Your task to perform on an android device: see sites visited before in the chrome app Image 0: 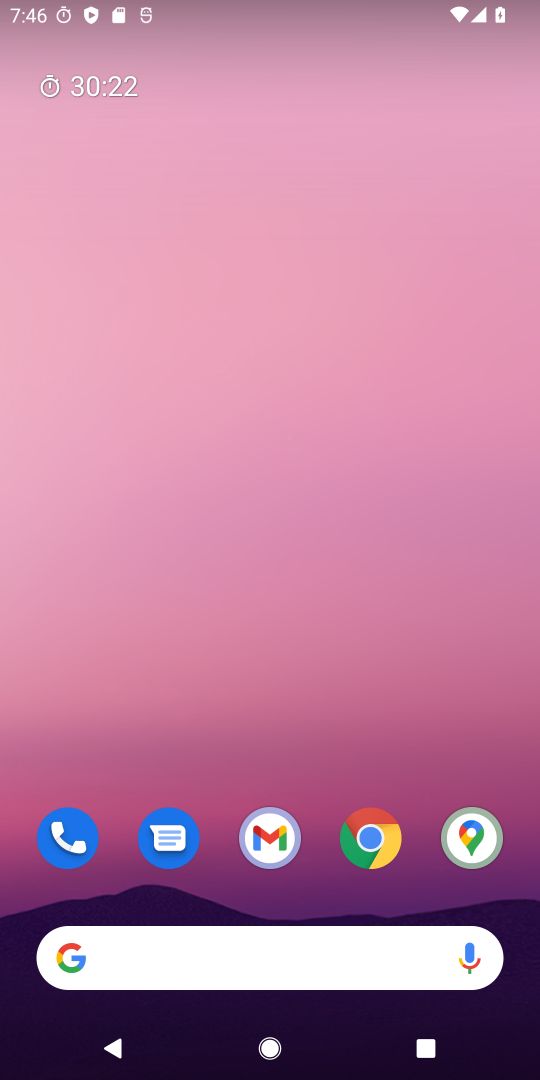
Step 0: drag from (357, 657) to (460, 108)
Your task to perform on an android device: see sites visited before in the chrome app Image 1: 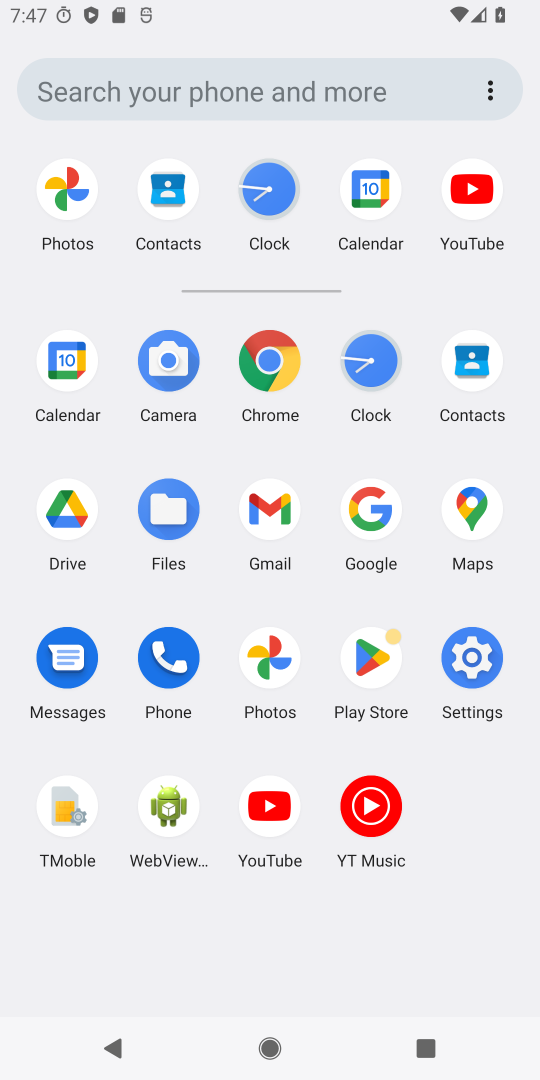
Step 1: click (269, 331)
Your task to perform on an android device: see sites visited before in the chrome app Image 2: 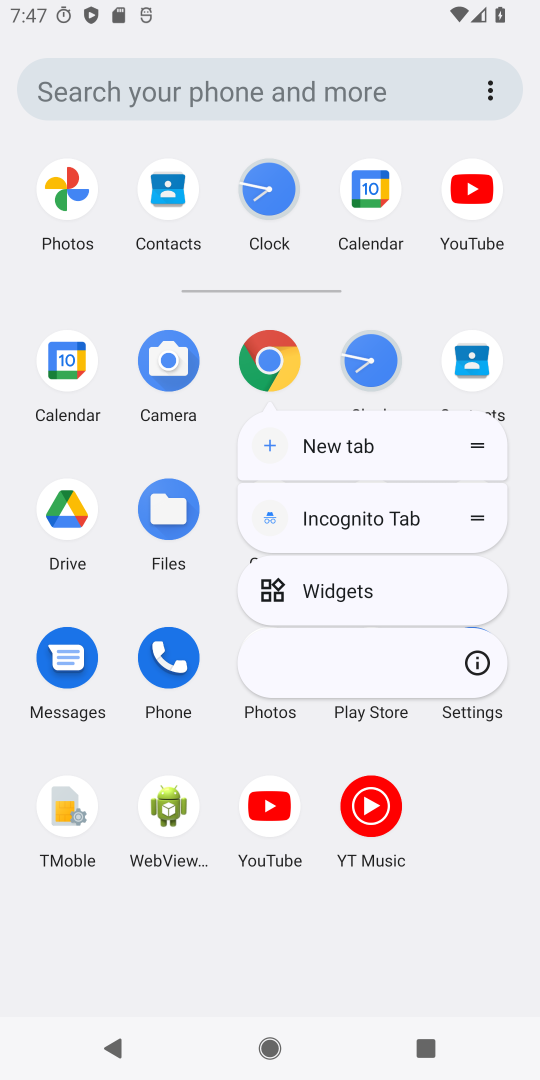
Step 2: click (269, 370)
Your task to perform on an android device: see sites visited before in the chrome app Image 3: 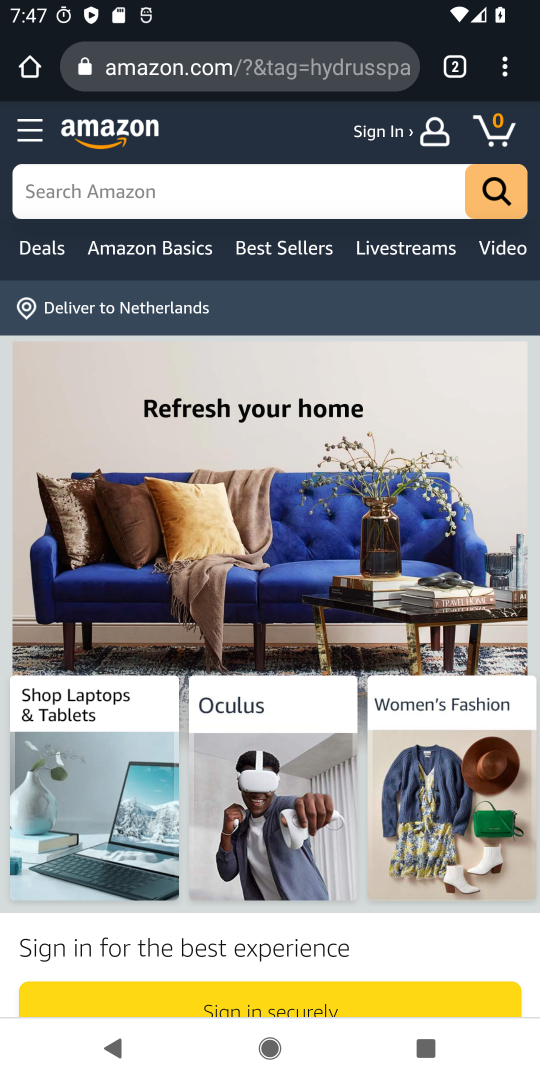
Step 3: drag from (503, 60) to (297, 343)
Your task to perform on an android device: see sites visited before in the chrome app Image 4: 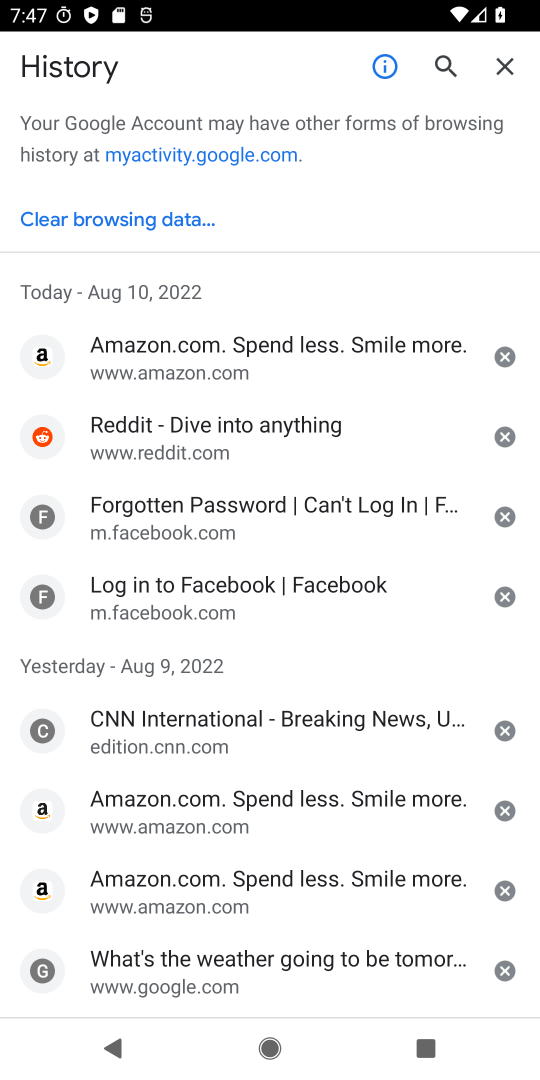
Step 4: click (212, 356)
Your task to perform on an android device: see sites visited before in the chrome app Image 5: 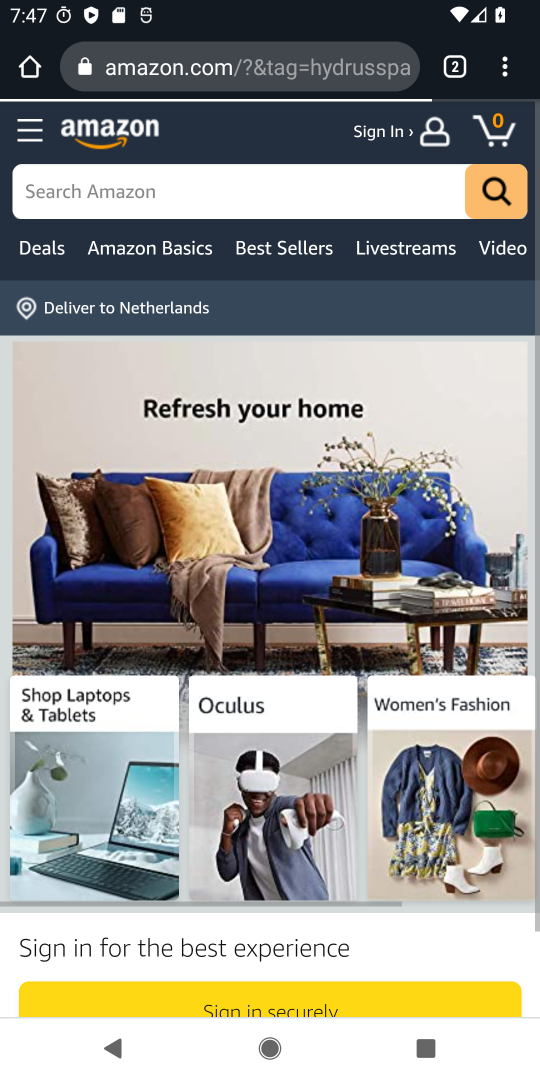
Step 5: task complete